Your task to perform on an android device: Show me the alarms in the clock app Image 0: 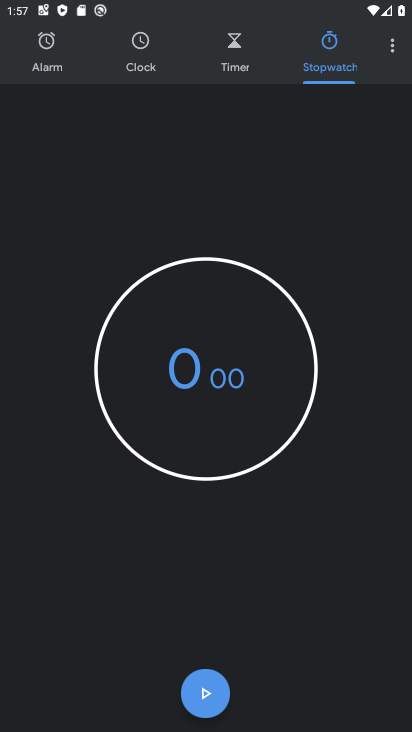
Step 0: click (45, 46)
Your task to perform on an android device: Show me the alarms in the clock app Image 1: 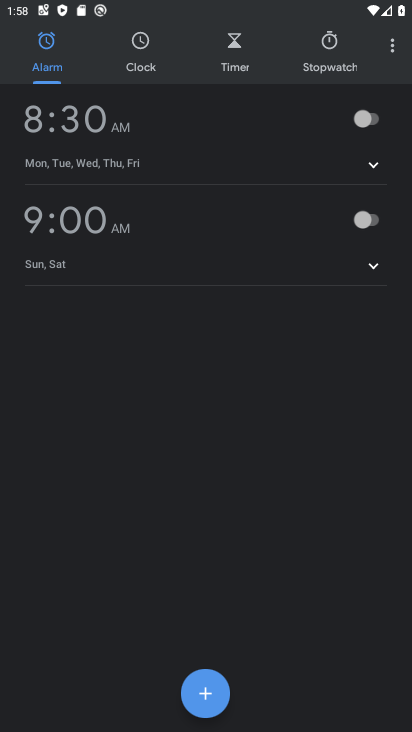
Step 1: task complete